Your task to perform on an android device: Do I have any events this weekend? Image 0: 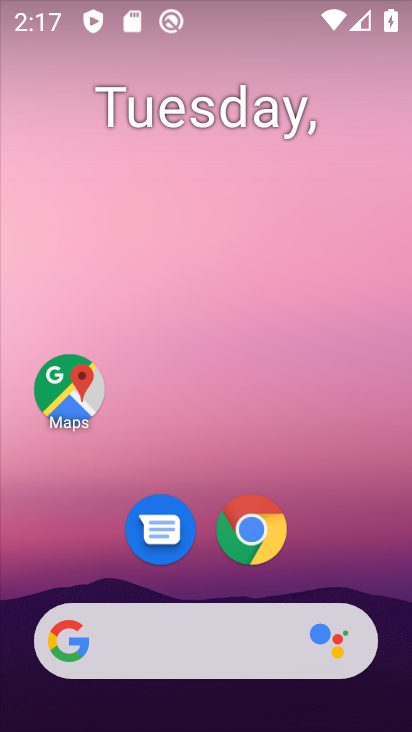
Step 0: drag from (391, 625) to (297, 58)
Your task to perform on an android device: Do I have any events this weekend? Image 1: 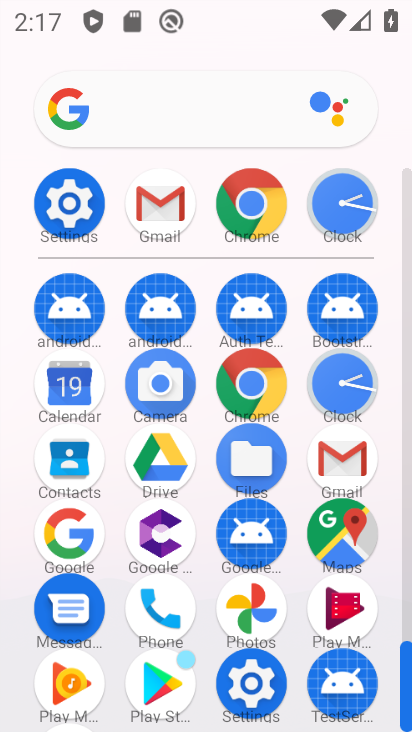
Step 1: click (74, 381)
Your task to perform on an android device: Do I have any events this weekend? Image 2: 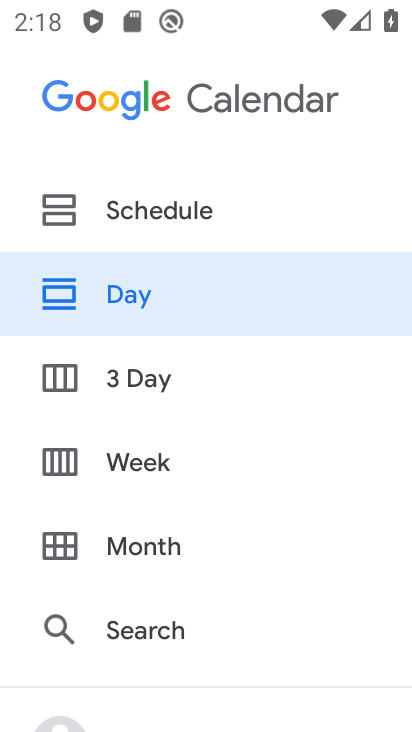
Step 2: task complete